Your task to perform on an android device: set the stopwatch Image 0: 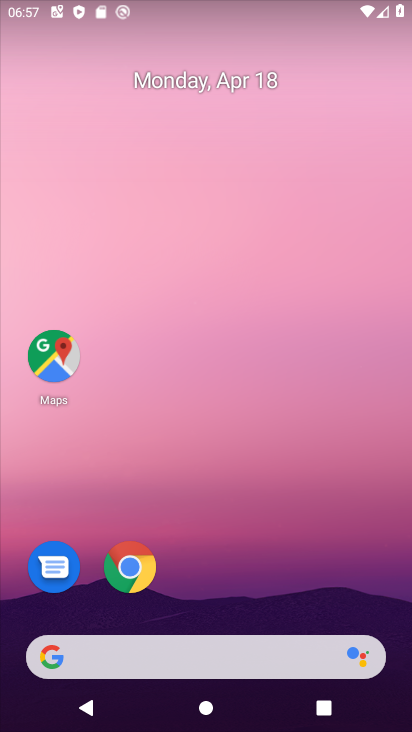
Step 0: drag from (215, 286) to (234, 99)
Your task to perform on an android device: set the stopwatch Image 1: 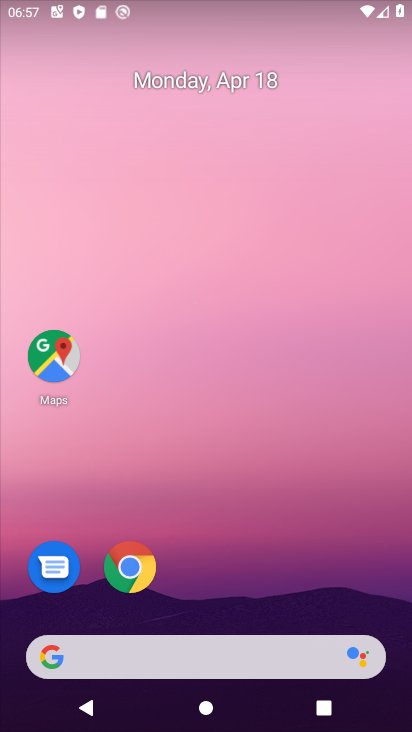
Step 1: drag from (284, 430) to (311, 0)
Your task to perform on an android device: set the stopwatch Image 2: 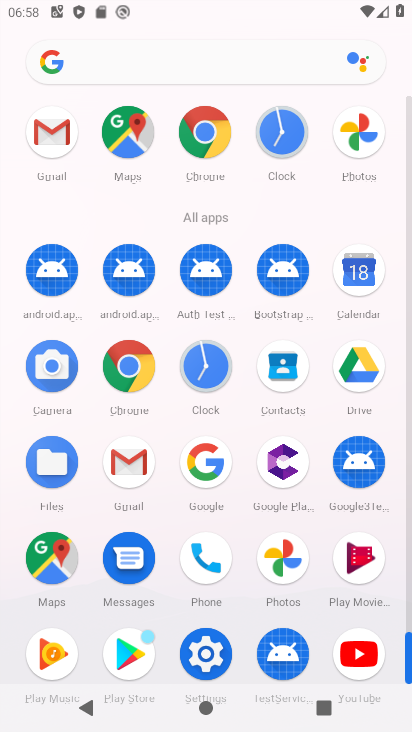
Step 2: click (218, 379)
Your task to perform on an android device: set the stopwatch Image 3: 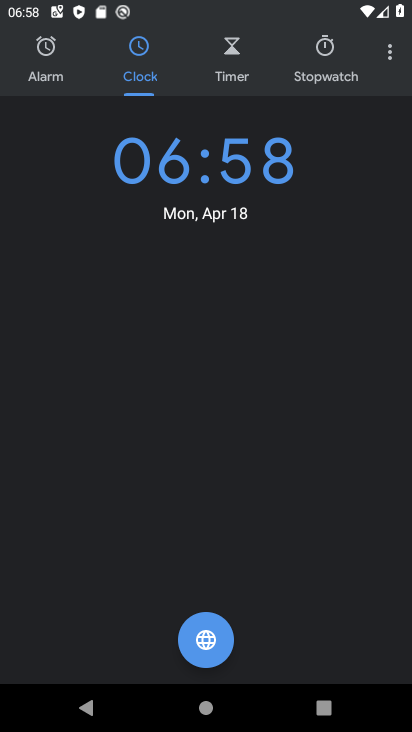
Step 3: click (331, 75)
Your task to perform on an android device: set the stopwatch Image 4: 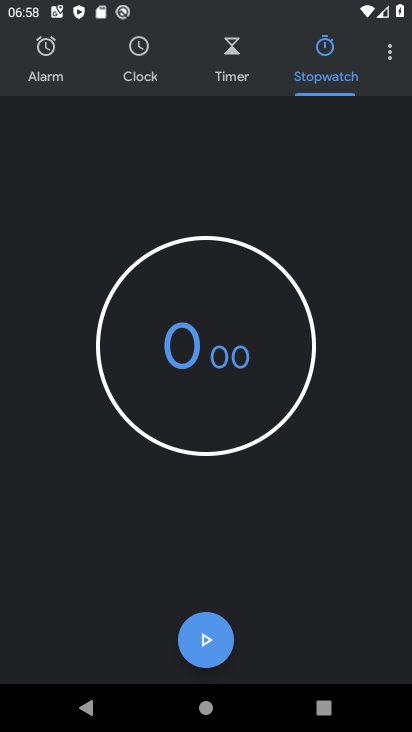
Step 4: click (202, 653)
Your task to perform on an android device: set the stopwatch Image 5: 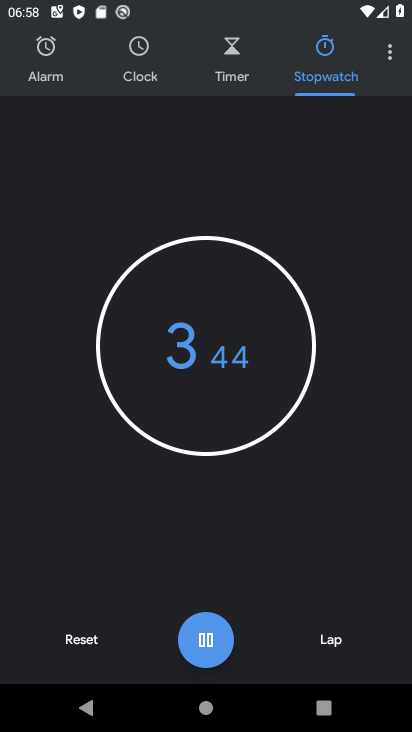
Step 5: task complete